Your task to perform on an android device: Search for sushi restaurants on Maps Image 0: 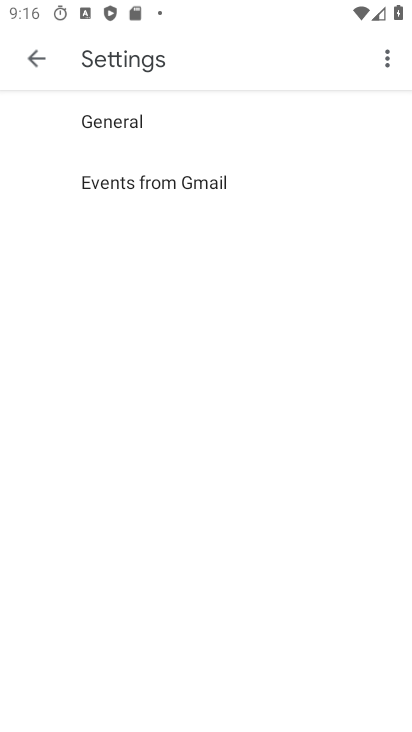
Step 0: click (126, 133)
Your task to perform on an android device: Search for sushi restaurants on Maps Image 1: 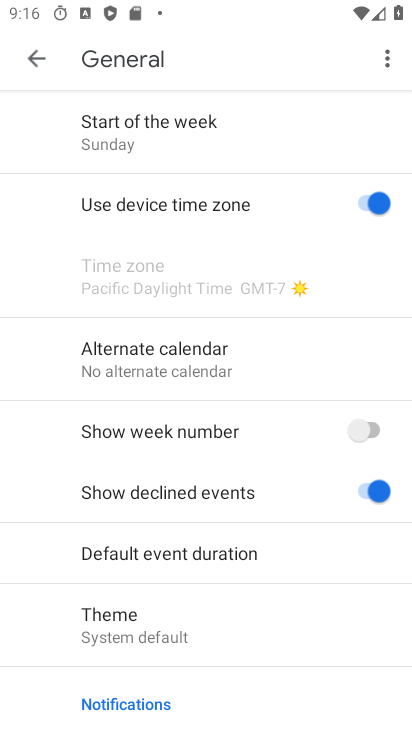
Step 1: press home button
Your task to perform on an android device: Search for sushi restaurants on Maps Image 2: 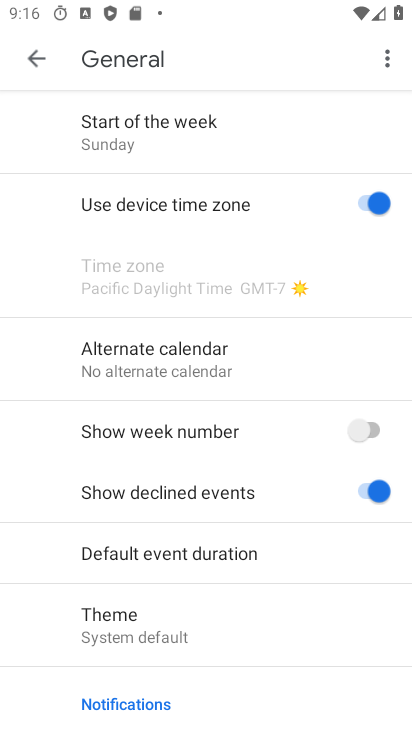
Step 2: press home button
Your task to perform on an android device: Search for sushi restaurants on Maps Image 3: 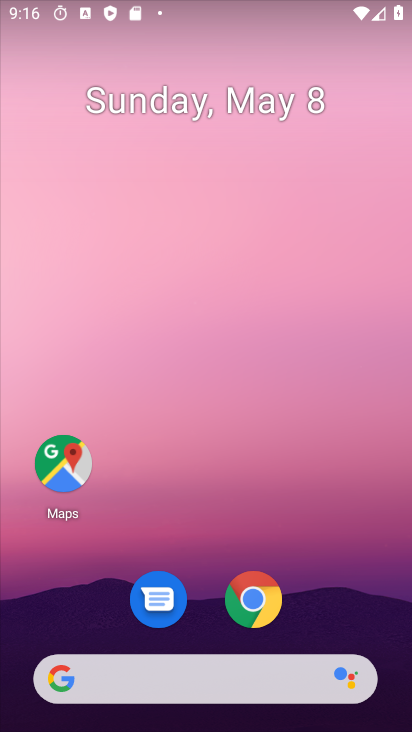
Step 3: click (200, 421)
Your task to perform on an android device: Search for sushi restaurants on Maps Image 4: 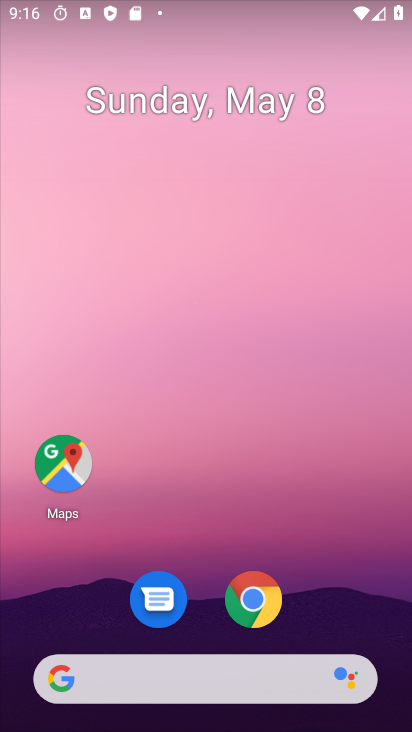
Step 4: drag from (160, 621) to (247, 209)
Your task to perform on an android device: Search for sushi restaurants on Maps Image 5: 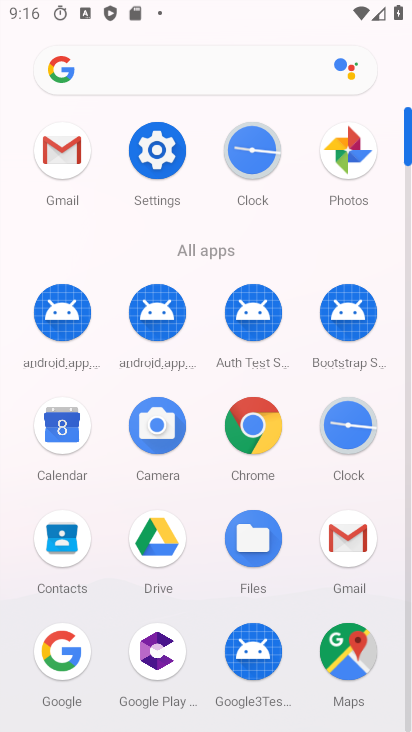
Step 5: click (367, 659)
Your task to perform on an android device: Search for sushi restaurants on Maps Image 6: 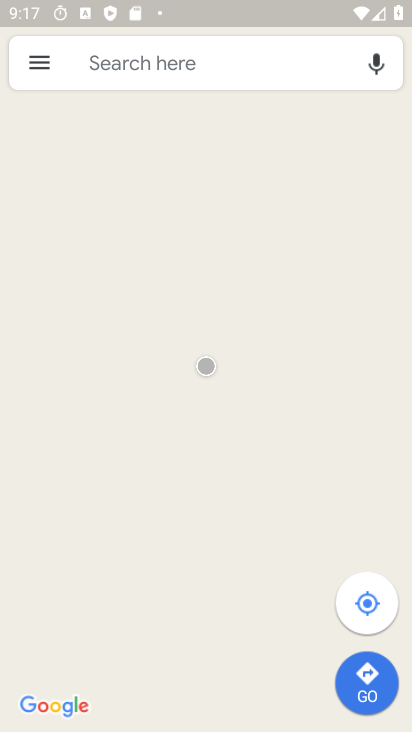
Step 6: click (155, 72)
Your task to perform on an android device: Search for sushi restaurants on Maps Image 7: 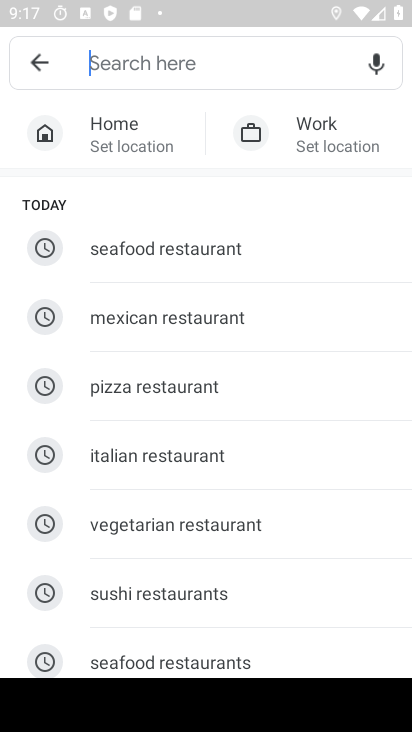
Step 7: click (163, 597)
Your task to perform on an android device: Search for sushi restaurants on Maps Image 8: 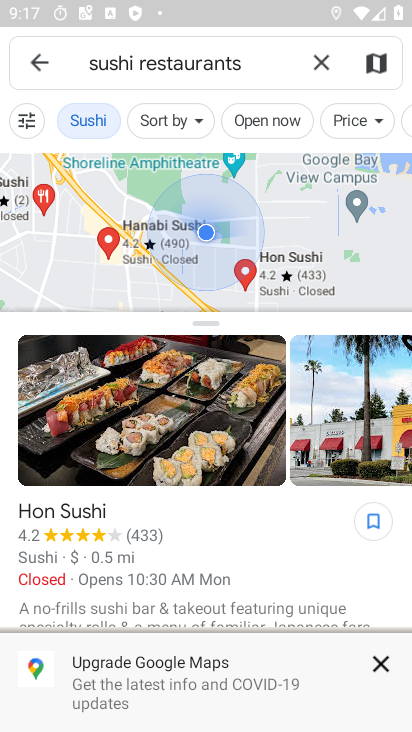
Step 8: task complete